Your task to perform on an android device: Show me popular videos on Youtube Image 0: 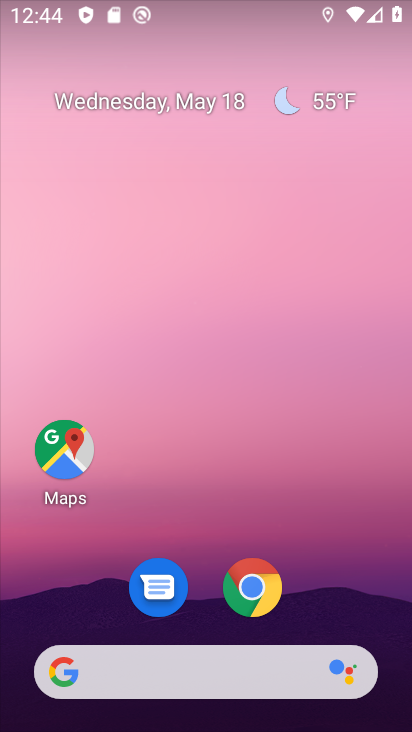
Step 0: drag from (191, 616) to (267, 135)
Your task to perform on an android device: Show me popular videos on Youtube Image 1: 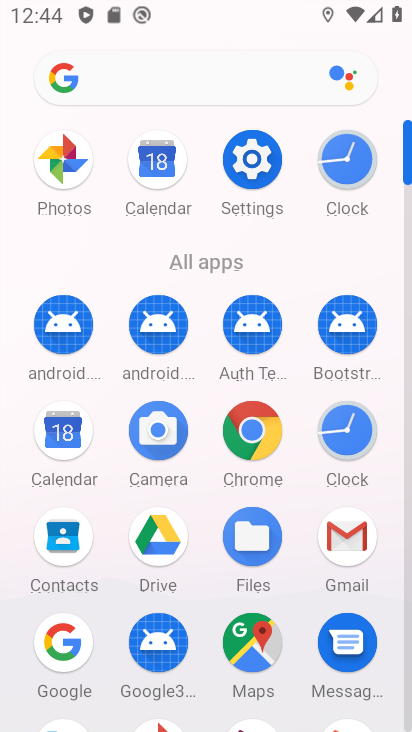
Step 1: drag from (137, 650) to (239, 59)
Your task to perform on an android device: Show me popular videos on Youtube Image 2: 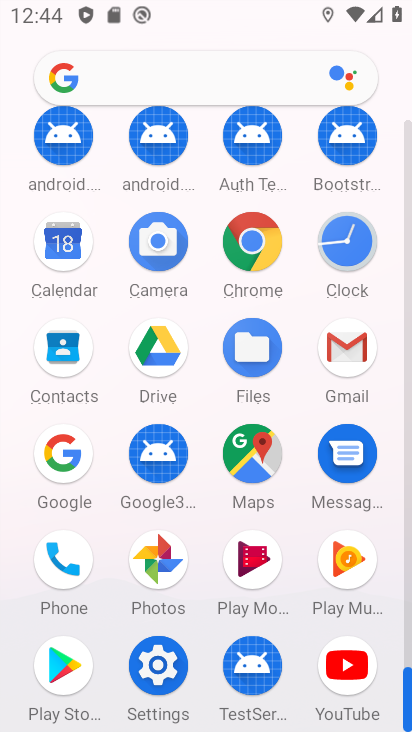
Step 2: click (340, 658)
Your task to perform on an android device: Show me popular videos on Youtube Image 3: 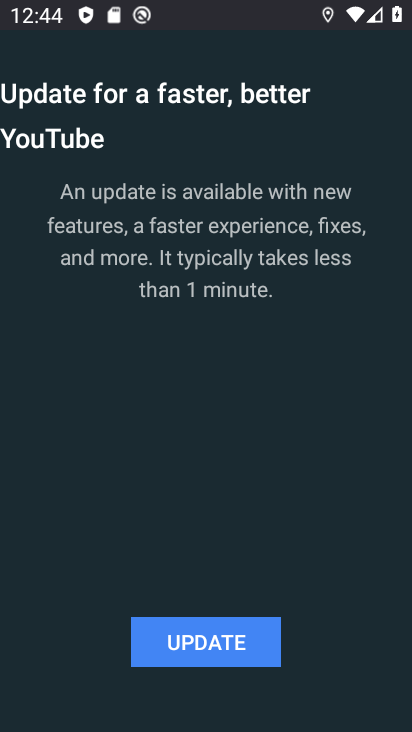
Step 3: click (251, 652)
Your task to perform on an android device: Show me popular videos on Youtube Image 4: 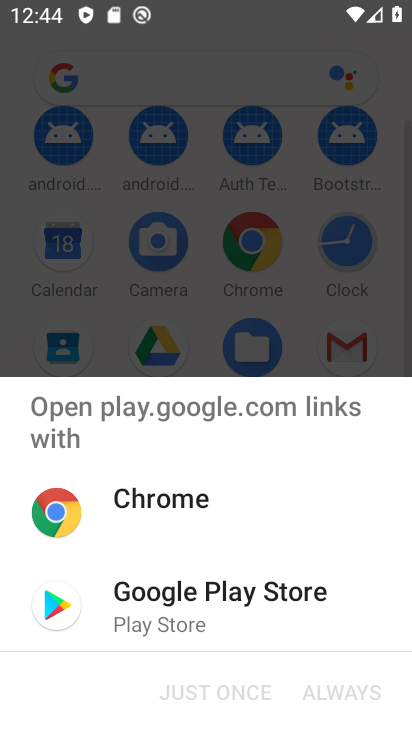
Step 4: click (200, 593)
Your task to perform on an android device: Show me popular videos on Youtube Image 5: 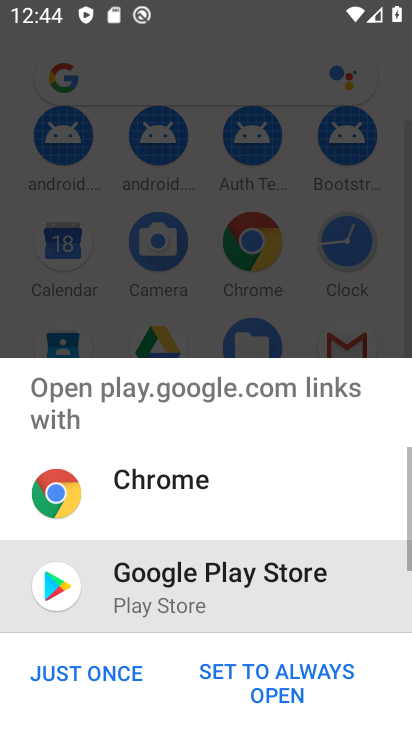
Step 5: click (105, 670)
Your task to perform on an android device: Show me popular videos on Youtube Image 6: 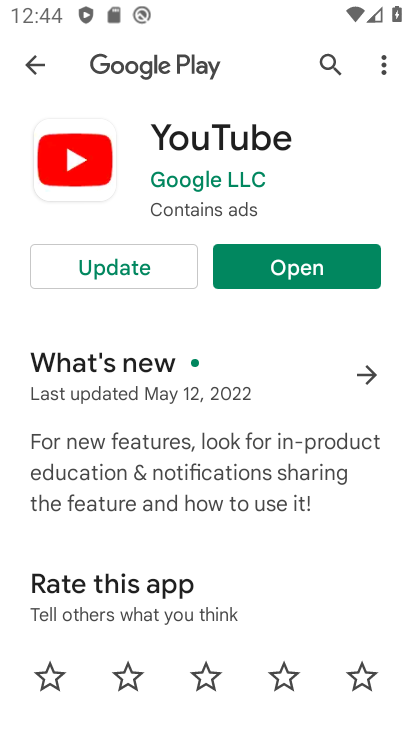
Step 6: click (132, 267)
Your task to perform on an android device: Show me popular videos on Youtube Image 7: 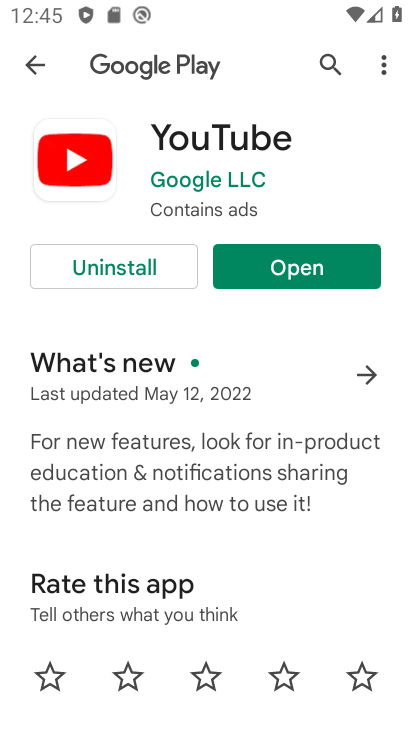
Step 7: click (308, 267)
Your task to perform on an android device: Show me popular videos on Youtube Image 8: 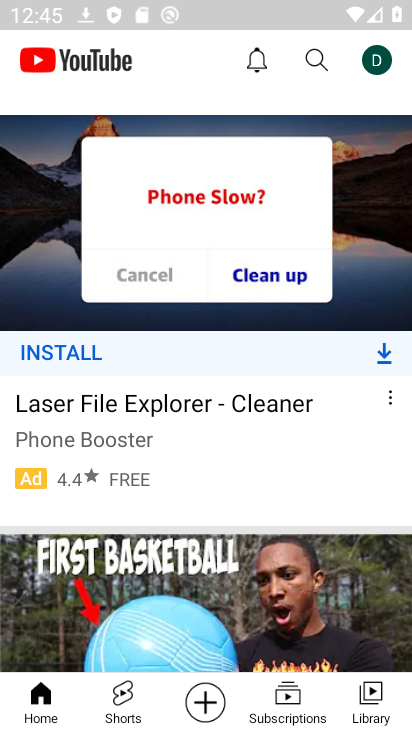
Step 8: drag from (175, 386) to (219, 88)
Your task to perform on an android device: Show me popular videos on Youtube Image 9: 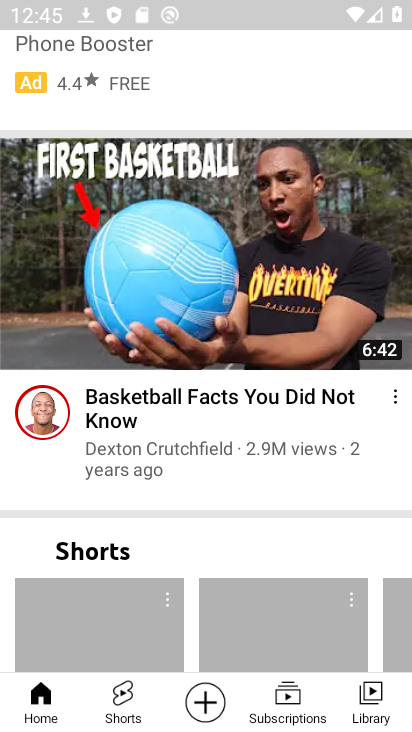
Step 9: drag from (208, 222) to (184, 613)
Your task to perform on an android device: Show me popular videos on Youtube Image 10: 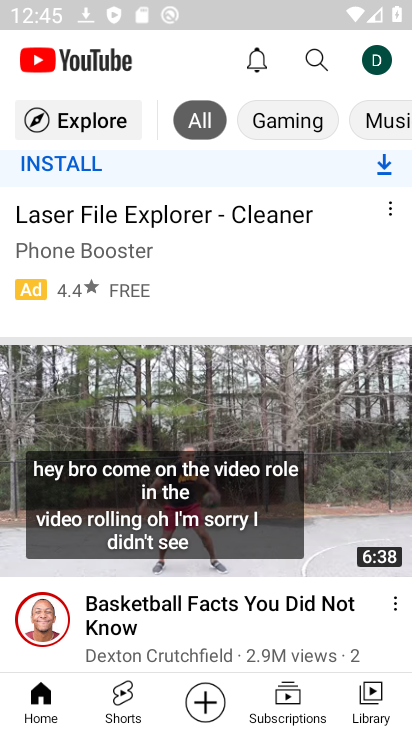
Step 10: click (63, 126)
Your task to perform on an android device: Show me popular videos on Youtube Image 11: 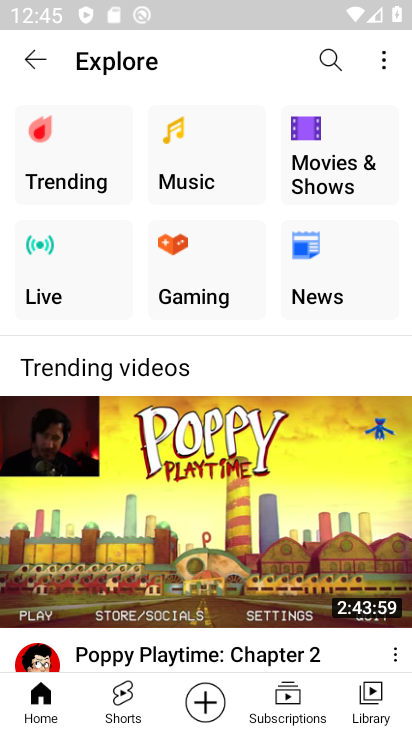
Step 11: task complete